Your task to perform on an android device: What is the recent news? Image 0: 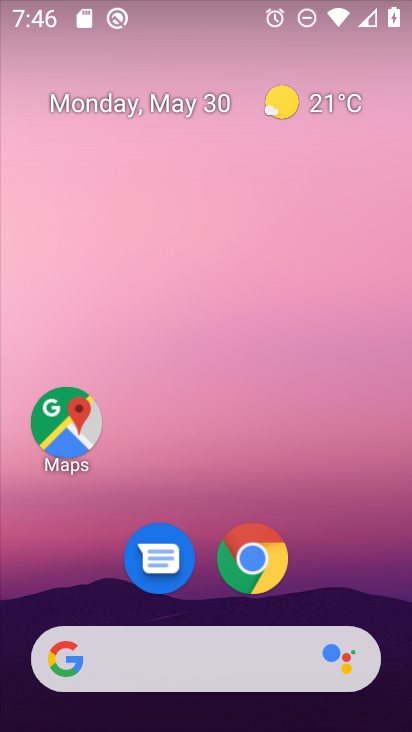
Step 0: click (221, 637)
Your task to perform on an android device: What is the recent news? Image 1: 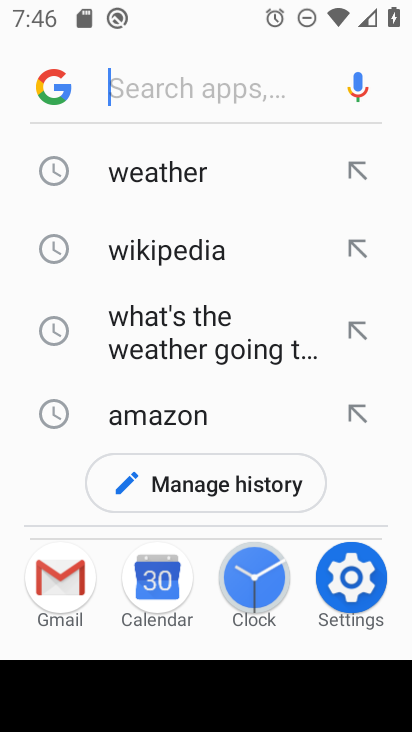
Step 1: click (156, 80)
Your task to perform on an android device: What is the recent news? Image 2: 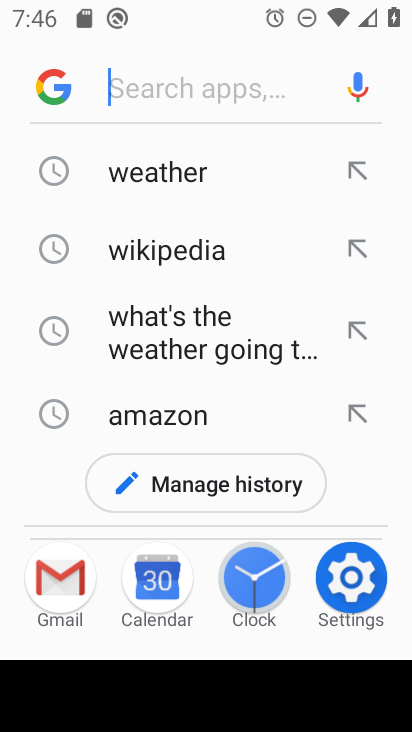
Step 2: type "recent news"
Your task to perform on an android device: What is the recent news? Image 3: 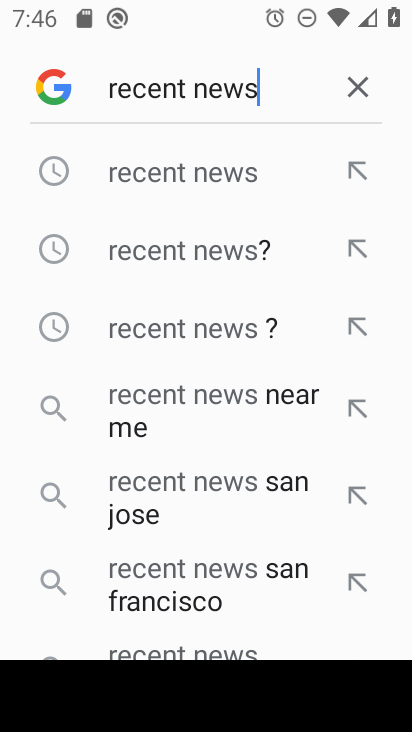
Step 3: click (205, 177)
Your task to perform on an android device: What is the recent news? Image 4: 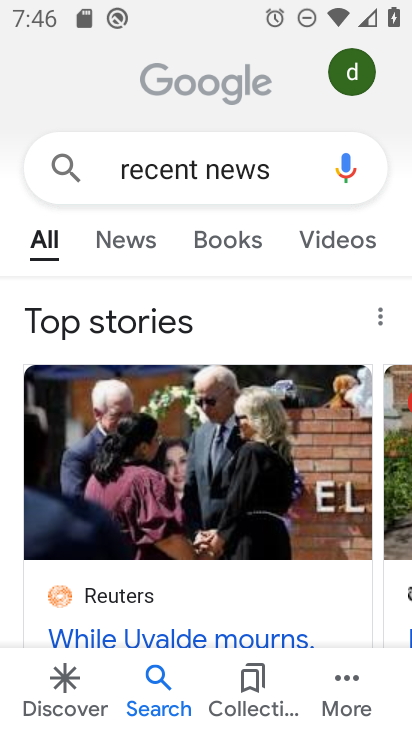
Step 4: task complete